Your task to perform on an android device: toggle javascript in the chrome app Image 0: 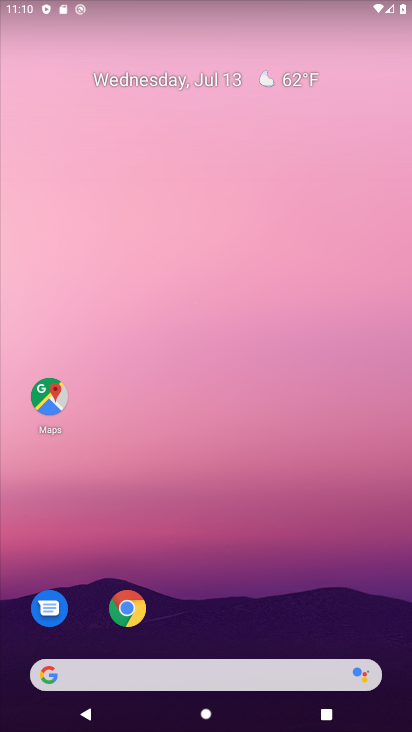
Step 0: click (128, 613)
Your task to perform on an android device: toggle javascript in the chrome app Image 1: 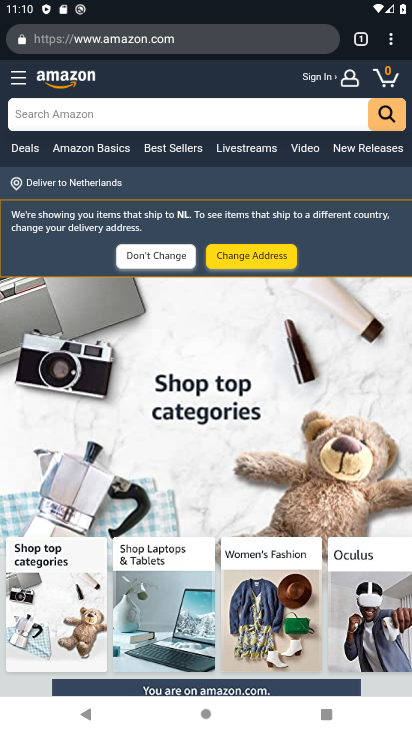
Step 1: click (391, 43)
Your task to perform on an android device: toggle javascript in the chrome app Image 2: 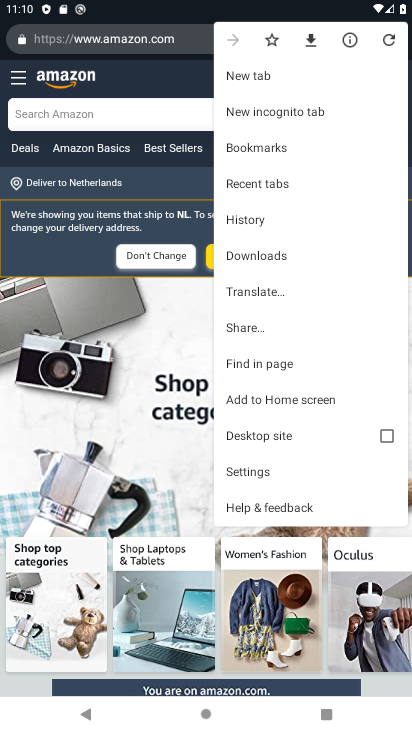
Step 2: click (250, 468)
Your task to perform on an android device: toggle javascript in the chrome app Image 3: 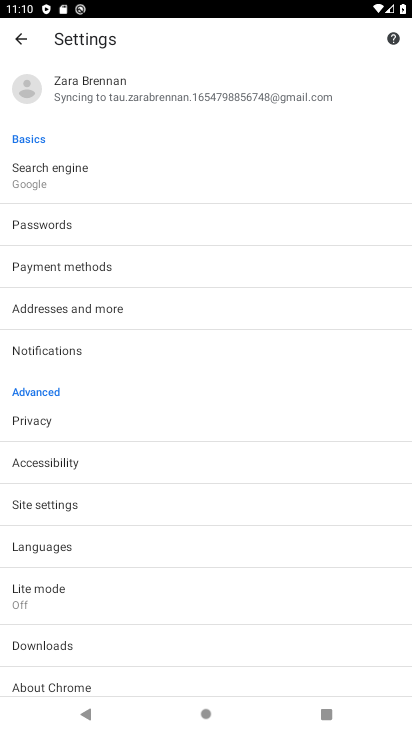
Step 3: click (64, 504)
Your task to perform on an android device: toggle javascript in the chrome app Image 4: 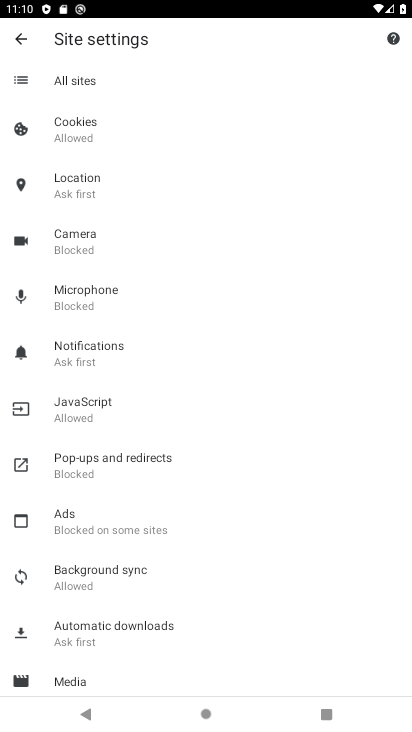
Step 4: click (72, 402)
Your task to perform on an android device: toggle javascript in the chrome app Image 5: 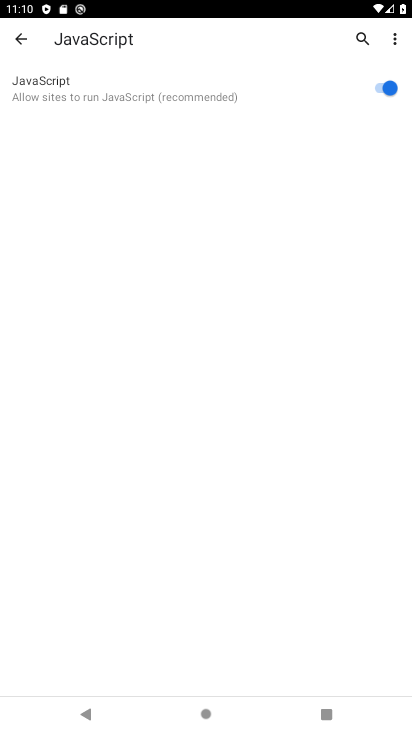
Step 5: click (384, 88)
Your task to perform on an android device: toggle javascript in the chrome app Image 6: 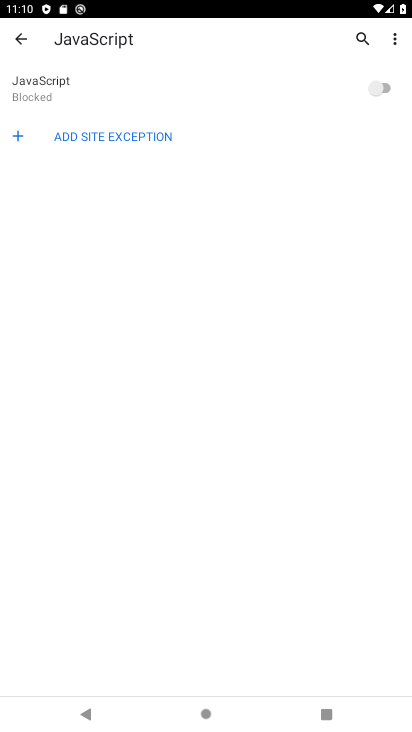
Step 6: task complete